Your task to perform on an android device: Go to location settings Image 0: 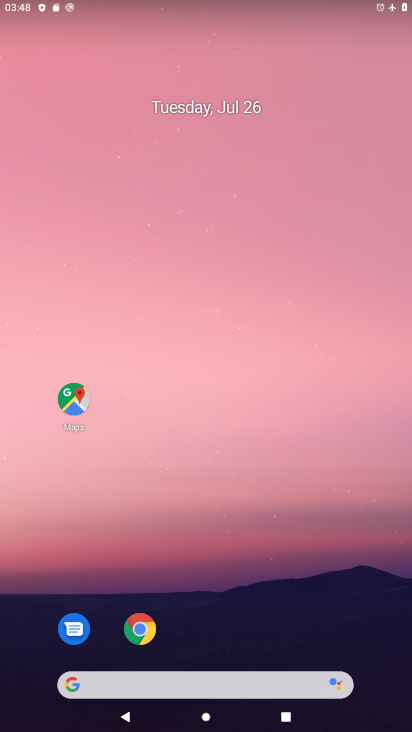
Step 0: drag from (288, 599) to (288, 54)
Your task to perform on an android device: Go to location settings Image 1: 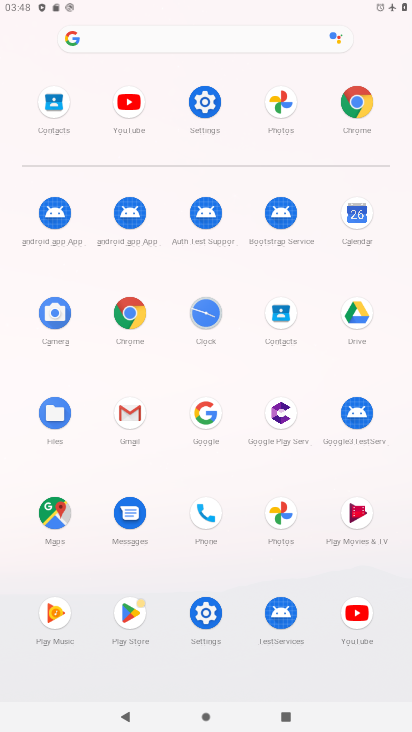
Step 1: click (196, 611)
Your task to perform on an android device: Go to location settings Image 2: 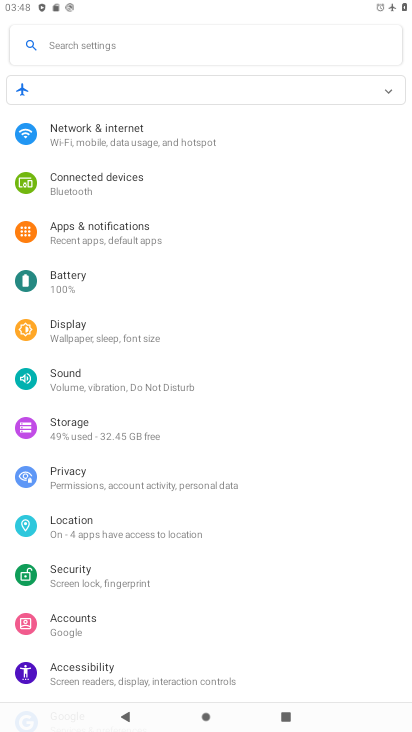
Step 2: click (68, 529)
Your task to perform on an android device: Go to location settings Image 3: 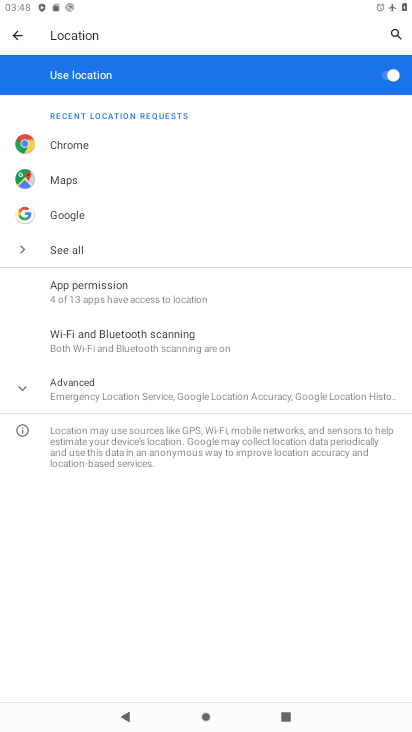
Step 3: task complete